Your task to perform on an android device: Open the map Image 0: 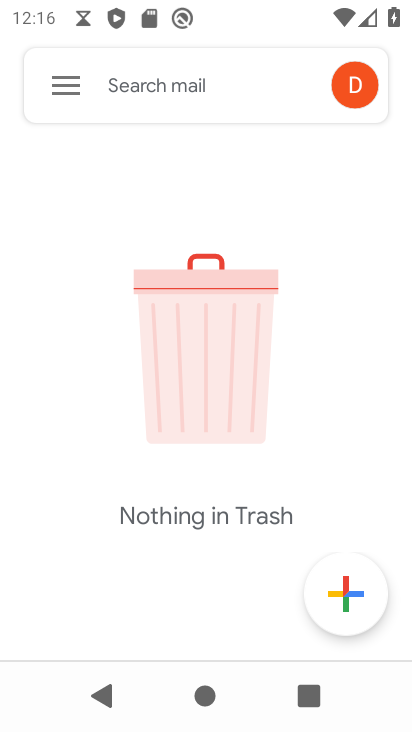
Step 0: press back button
Your task to perform on an android device: Open the map Image 1: 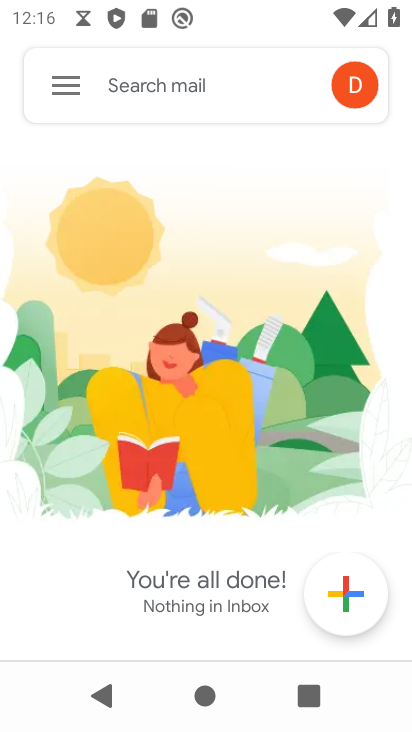
Step 1: press home button
Your task to perform on an android device: Open the map Image 2: 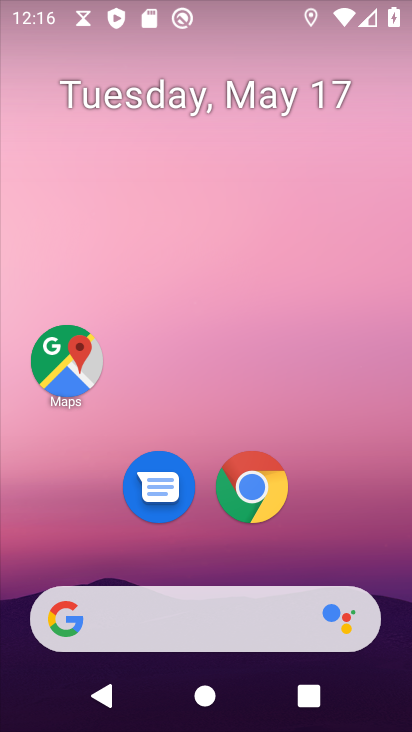
Step 2: drag from (332, 521) to (290, 67)
Your task to perform on an android device: Open the map Image 3: 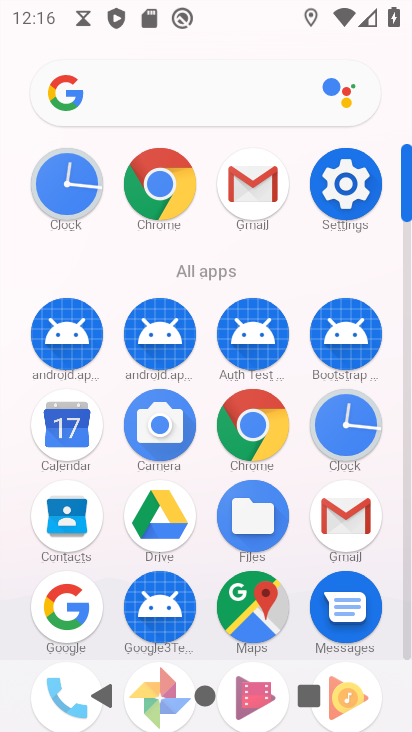
Step 3: click (244, 605)
Your task to perform on an android device: Open the map Image 4: 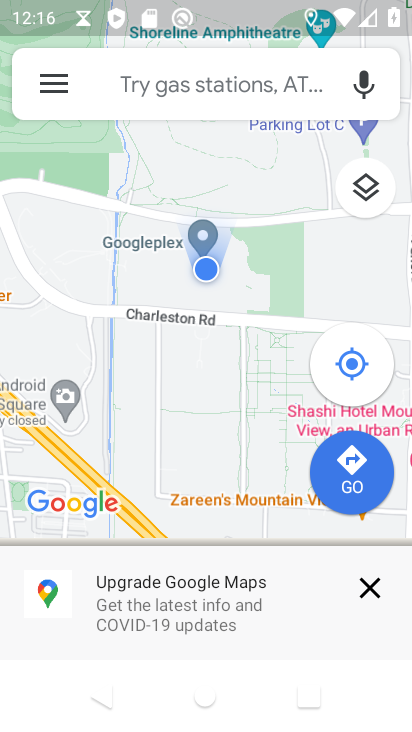
Step 4: click (51, 77)
Your task to perform on an android device: Open the map Image 5: 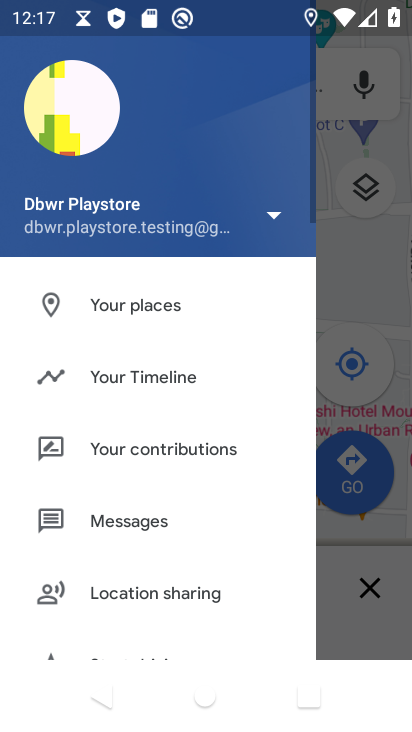
Step 5: drag from (182, 572) to (210, 226)
Your task to perform on an android device: Open the map Image 6: 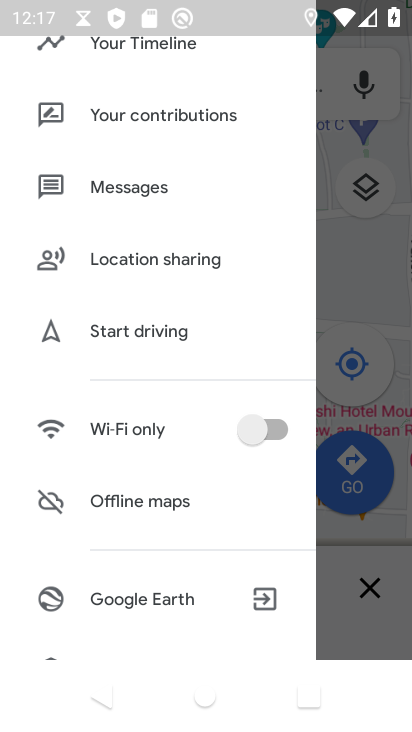
Step 6: drag from (188, 523) to (196, 154)
Your task to perform on an android device: Open the map Image 7: 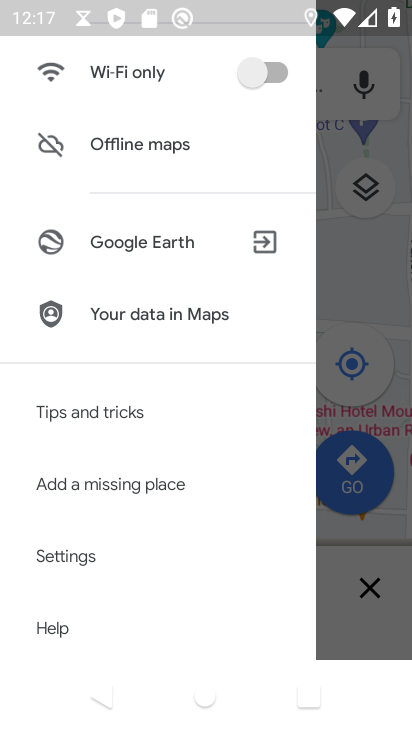
Step 7: drag from (141, 160) to (127, 567)
Your task to perform on an android device: Open the map Image 8: 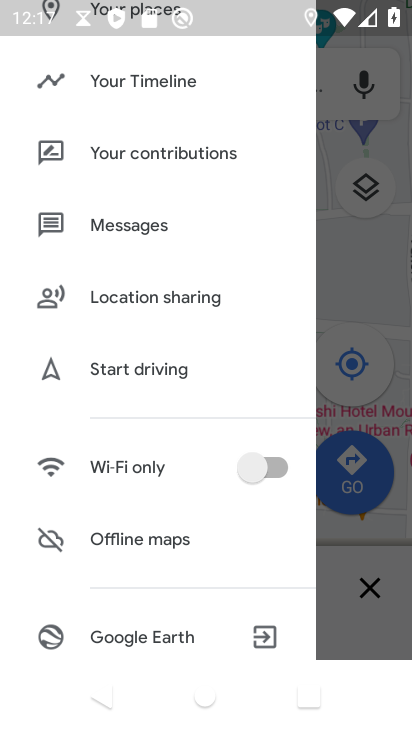
Step 8: click (352, 241)
Your task to perform on an android device: Open the map Image 9: 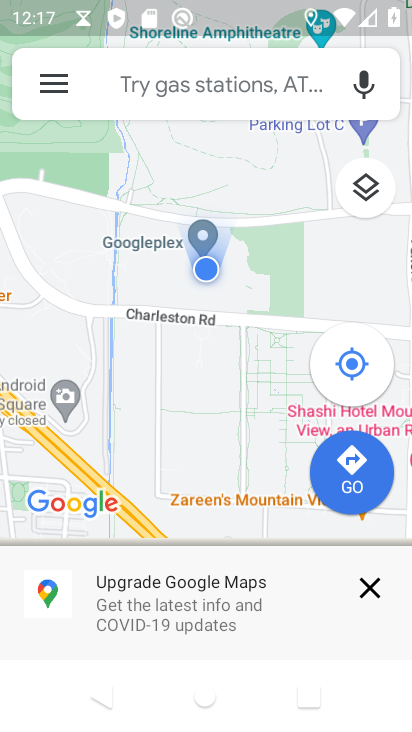
Step 9: click (365, 596)
Your task to perform on an android device: Open the map Image 10: 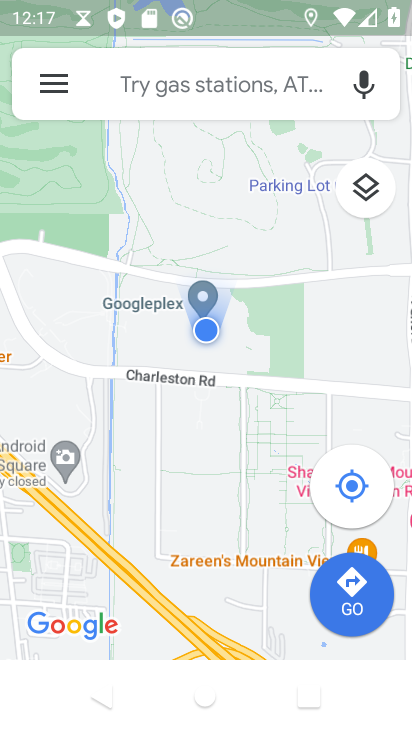
Step 10: task complete